Your task to perform on an android device: Find coffee shops on Maps Image 0: 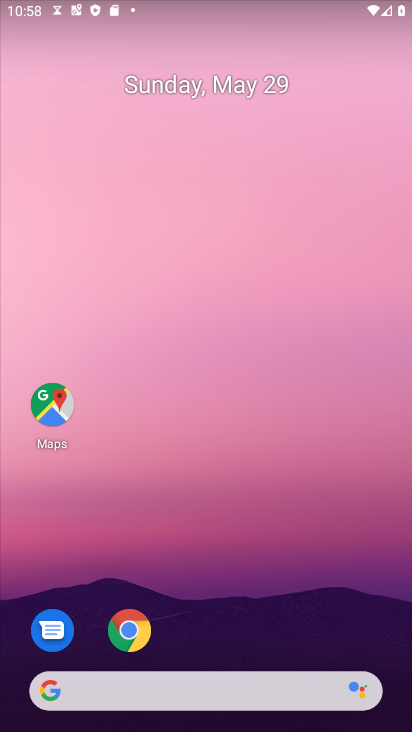
Step 0: click (41, 424)
Your task to perform on an android device: Find coffee shops on Maps Image 1: 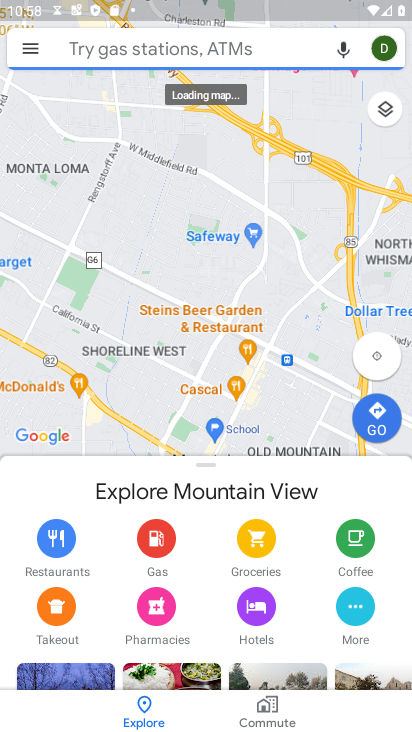
Step 1: click (103, 40)
Your task to perform on an android device: Find coffee shops on Maps Image 2: 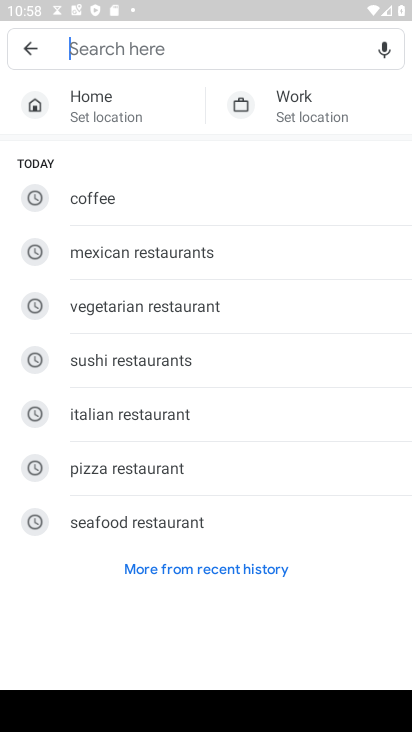
Step 2: type "coffee shop"
Your task to perform on an android device: Find coffee shops on Maps Image 3: 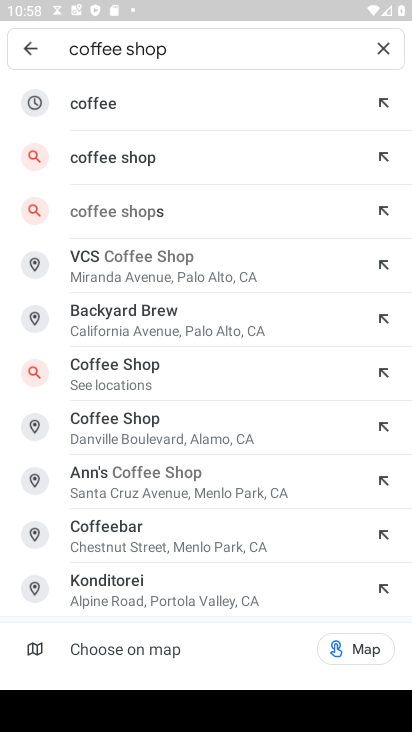
Step 3: click (133, 152)
Your task to perform on an android device: Find coffee shops on Maps Image 4: 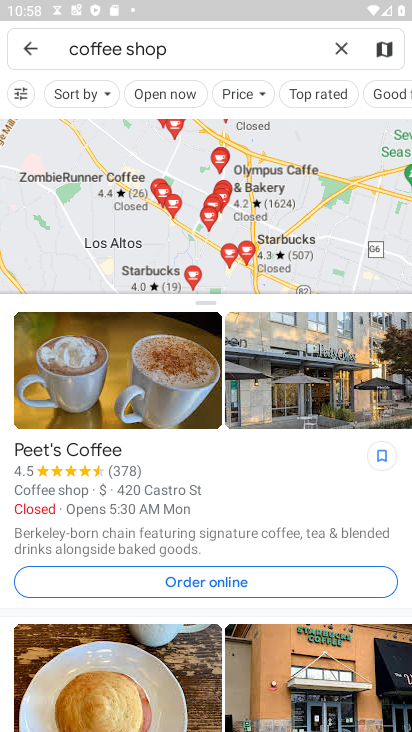
Step 4: task complete